Your task to perform on an android device: Show me productivity apps on the Play Store Image 0: 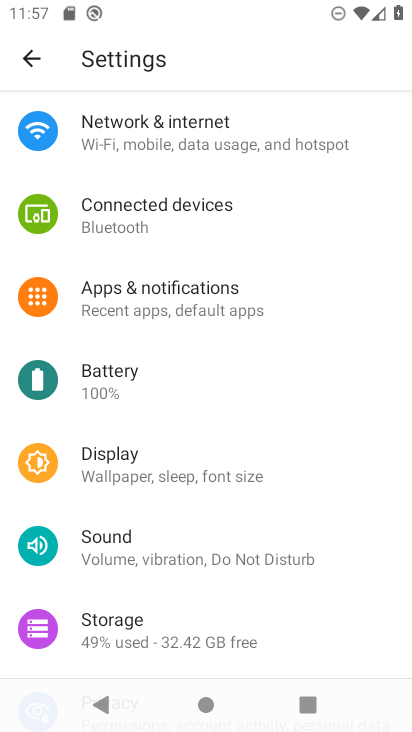
Step 0: press home button
Your task to perform on an android device: Show me productivity apps on the Play Store Image 1: 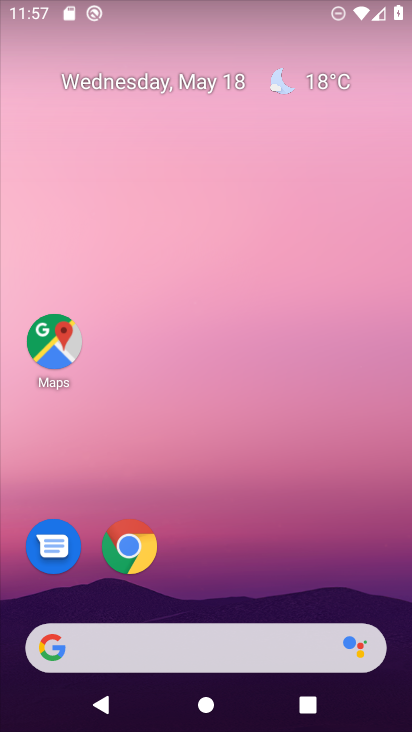
Step 1: drag from (234, 722) to (243, 143)
Your task to perform on an android device: Show me productivity apps on the Play Store Image 2: 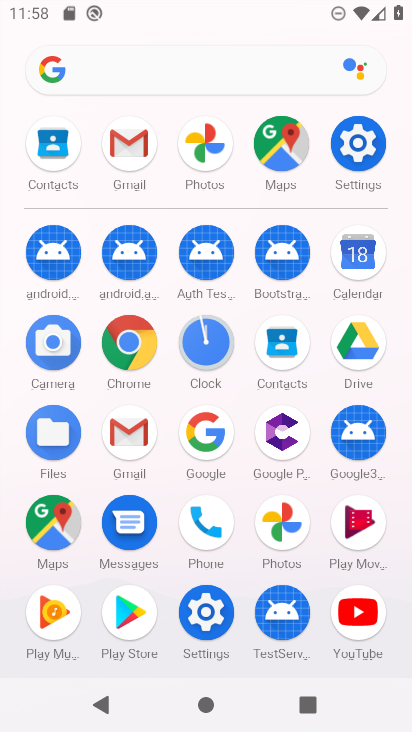
Step 2: click (127, 614)
Your task to perform on an android device: Show me productivity apps on the Play Store Image 3: 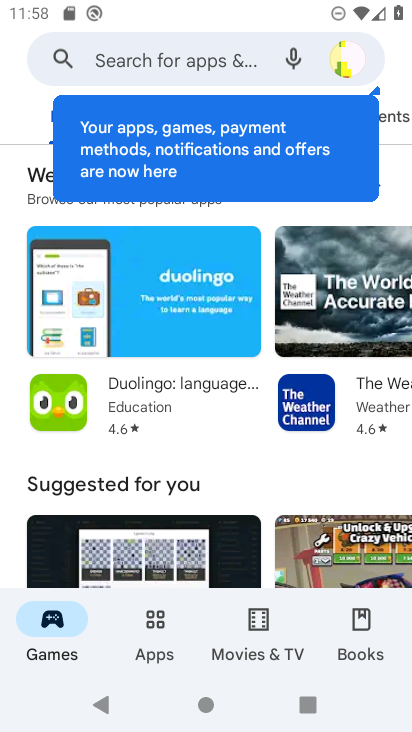
Step 3: click (156, 616)
Your task to perform on an android device: Show me productivity apps on the Play Store Image 4: 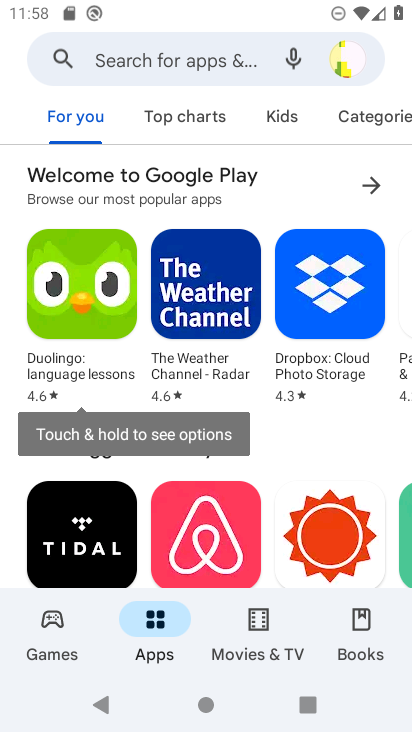
Step 4: drag from (358, 115) to (105, 94)
Your task to perform on an android device: Show me productivity apps on the Play Store Image 5: 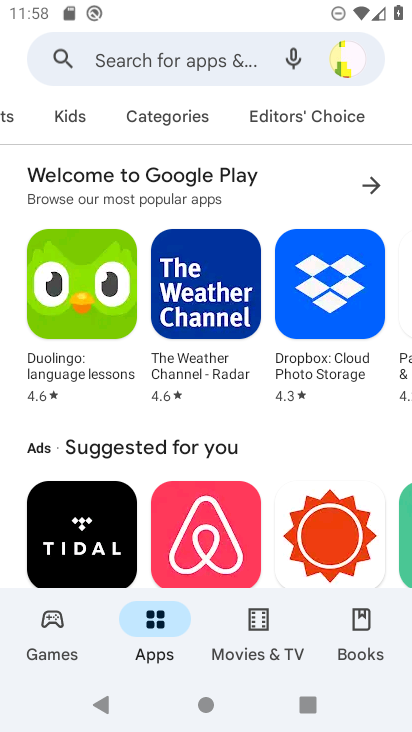
Step 5: drag from (338, 112) to (89, 106)
Your task to perform on an android device: Show me productivity apps on the Play Store Image 6: 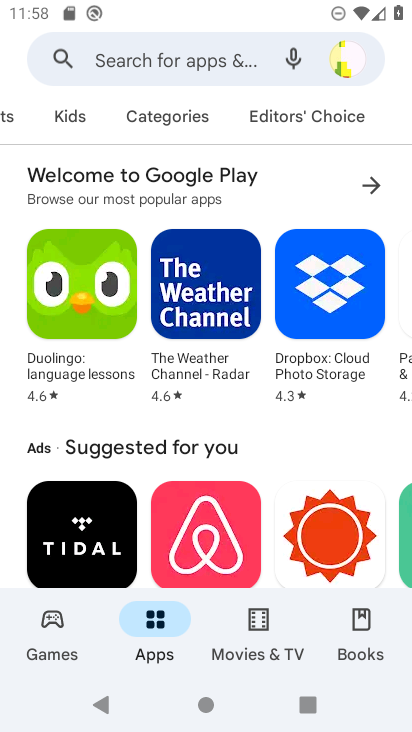
Step 6: click (163, 118)
Your task to perform on an android device: Show me productivity apps on the Play Store Image 7: 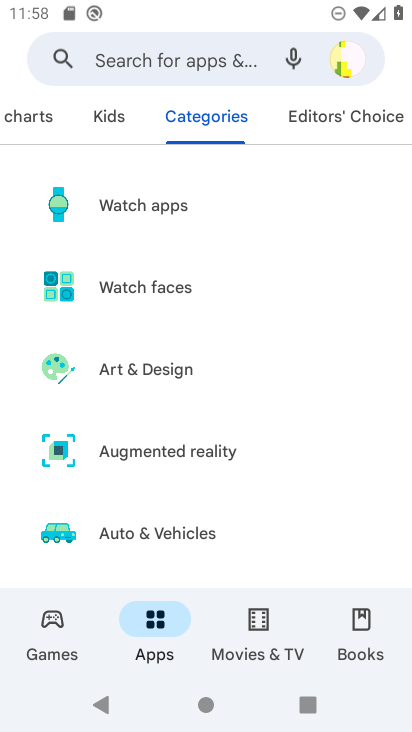
Step 7: drag from (246, 547) to (253, 220)
Your task to perform on an android device: Show me productivity apps on the Play Store Image 8: 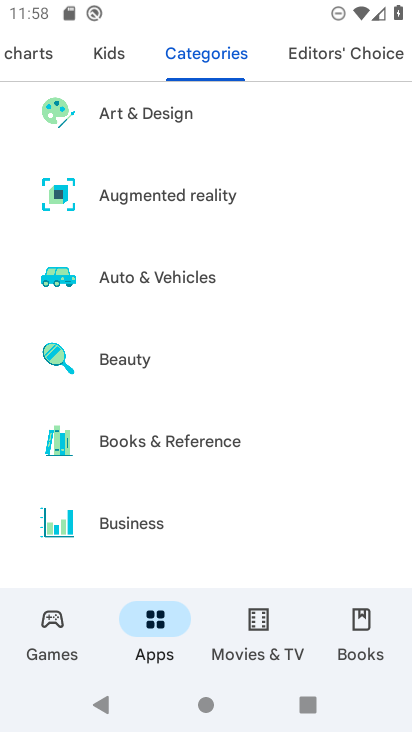
Step 8: drag from (182, 527) to (187, 112)
Your task to perform on an android device: Show me productivity apps on the Play Store Image 9: 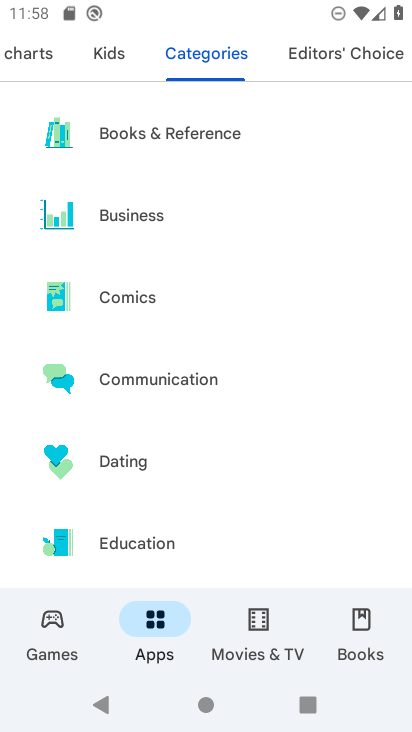
Step 9: drag from (172, 545) to (182, 111)
Your task to perform on an android device: Show me productivity apps on the Play Store Image 10: 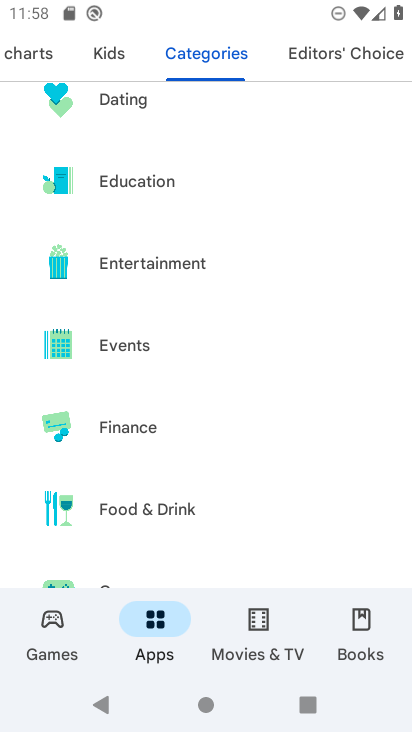
Step 10: drag from (174, 544) to (180, 181)
Your task to perform on an android device: Show me productivity apps on the Play Store Image 11: 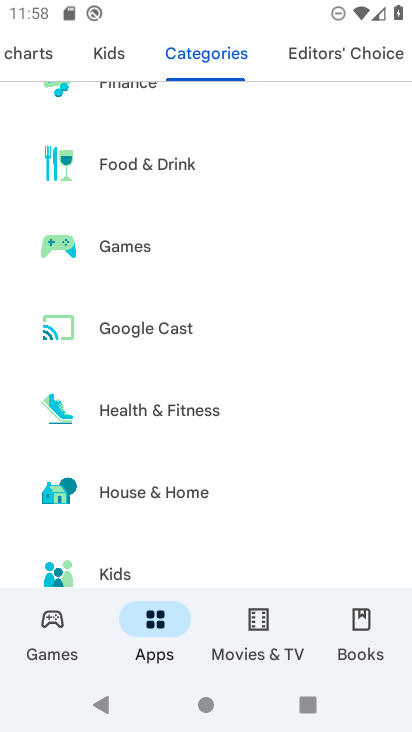
Step 11: drag from (170, 497) to (180, 86)
Your task to perform on an android device: Show me productivity apps on the Play Store Image 12: 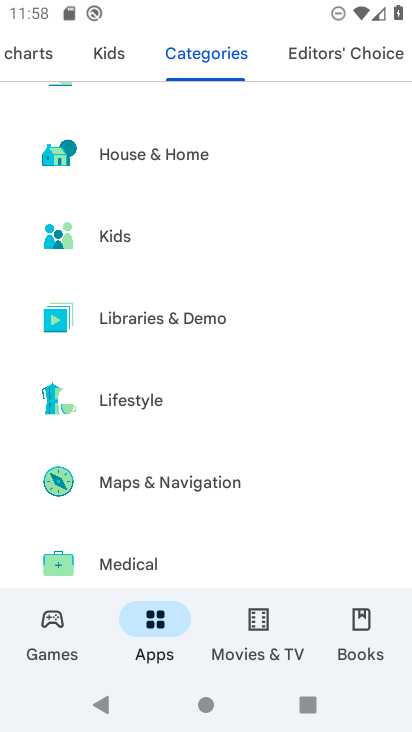
Step 12: drag from (160, 542) to (182, 31)
Your task to perform on an android device: Show me productivity apps on the Play Store Image 13: 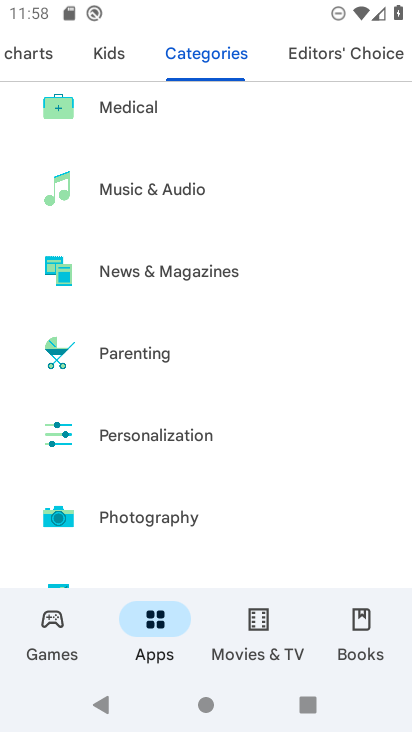
Step 13: drag from (184, 543) to (213, 249)
Your task to perform on an android device: Show me productivity apps on the Play Store Image 14: 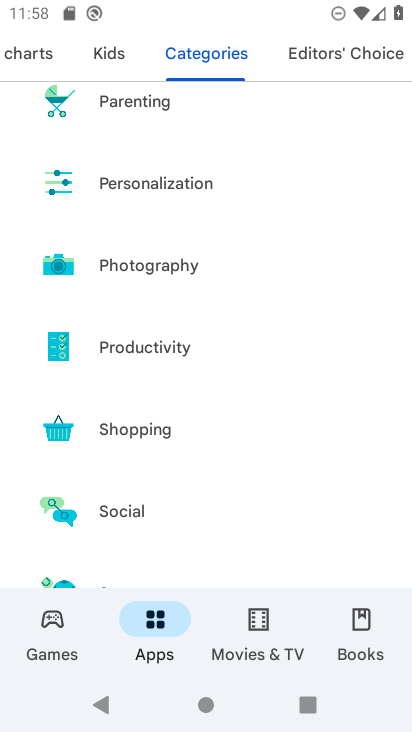
Step 14: click (144, 342)
Your task to perform on an android device: Show me productivity apps on the Play Store Image 15: 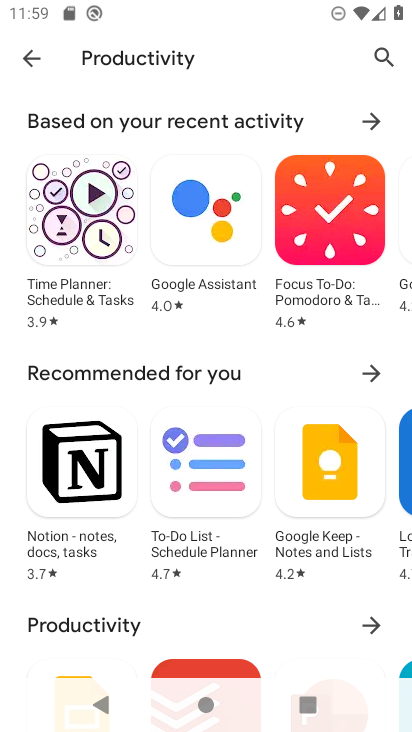
Step 15: task complete